Your task to perform on an android device: toggle translation in the chrome app Image 0: 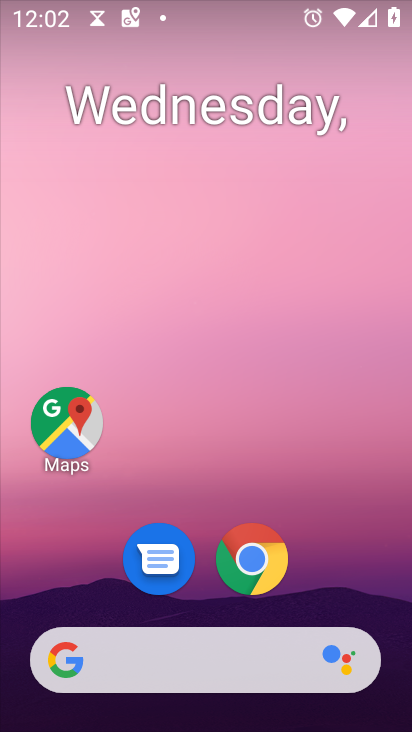
Step 0: drag from (332, 576) to (306, 2)
Your task to perform on an android device: toggle translation in the chrome app Image 1: 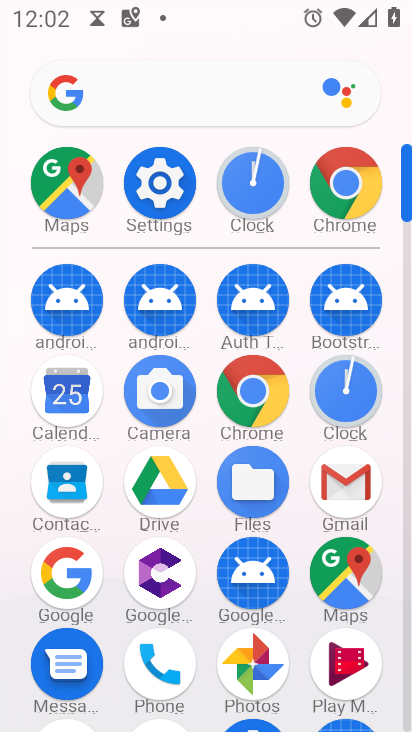
Step 1: click (349, 197)
Your task to perform on an android device: toggle translation in the chrome app Image 2: 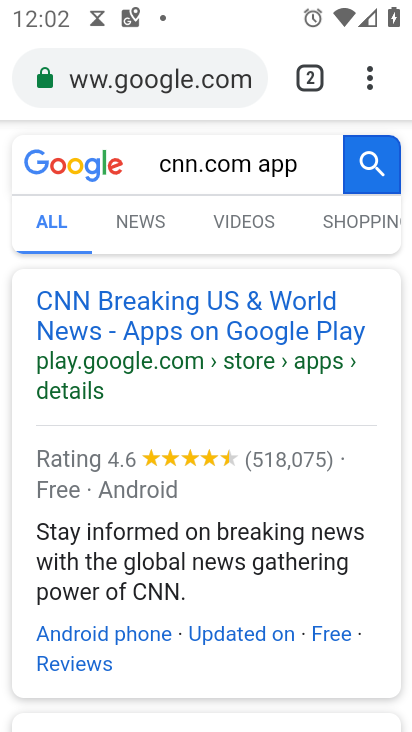
Step 2: drag from (375, 88) to (130, 606)
Your task to perform on an android device: toggle translation in the chrome app Image 3: 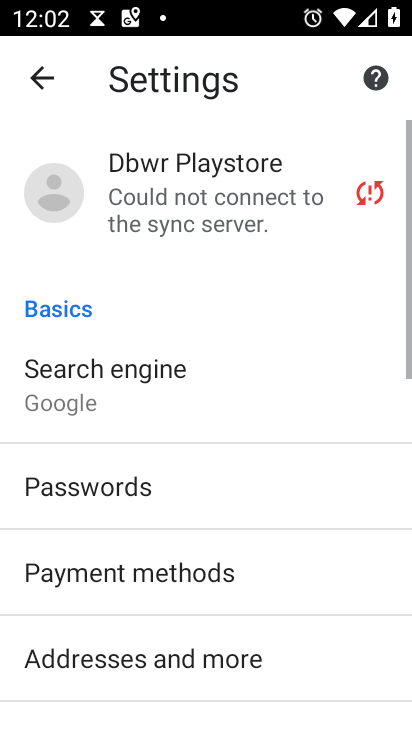
Step 3: drag from (199, 614) to (256, 171)
Your task to perform on an android device: toggle translation in the chrome app Image 4: 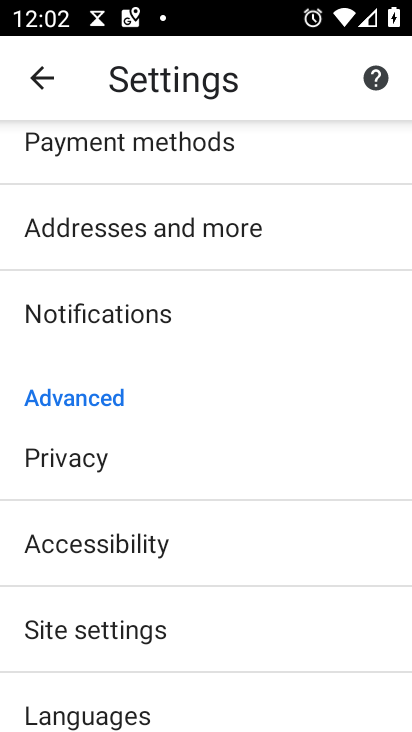
Step 4: drag from (167, 647) to (218, 258)
Your task to perform on an android device: toggle translation in the chrome app Image 5: 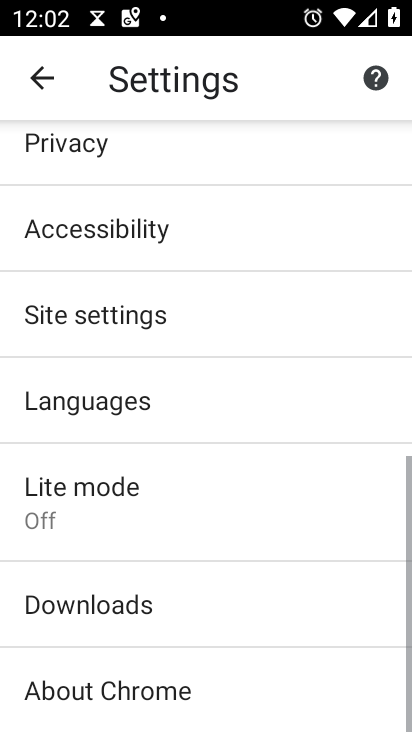
Step 5: click (101, 404)
Your task to perform on an android device: toggle translation in the chrome app Image 6: 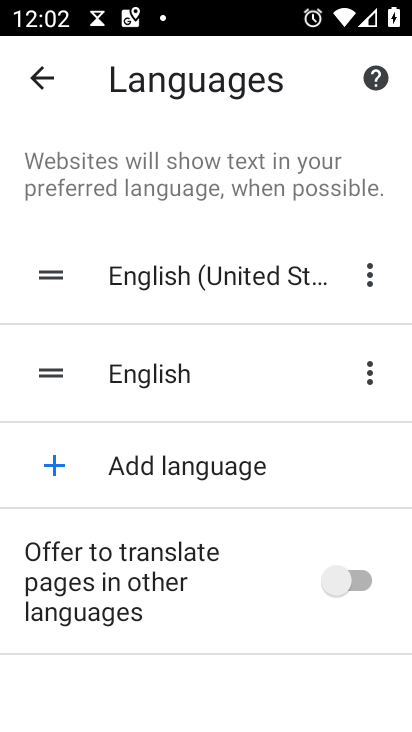
Step 6: click (340, 586)
Your task to perform on an android device: toggle translation in the chrome app Image 7: 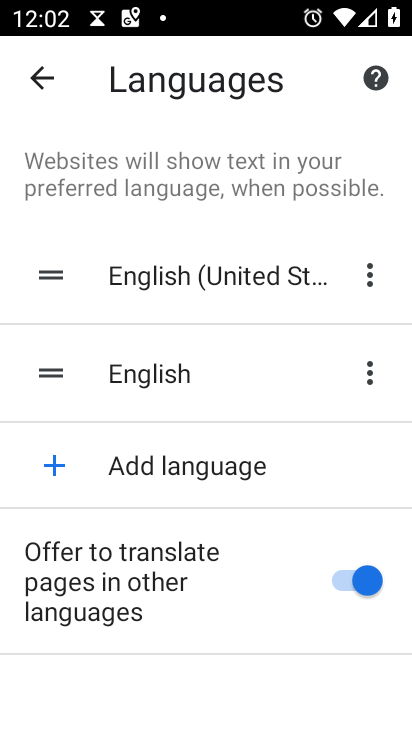
Step 7: task complete